Your task to perform on an android device: install app "ColorNote Notepad Notes" Image 0: 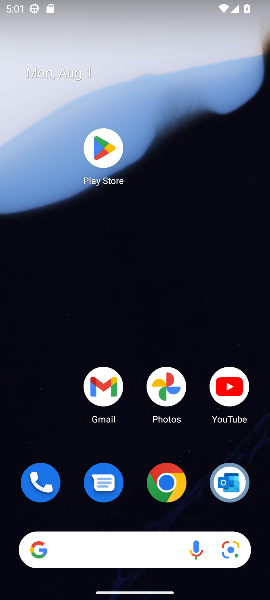
Step 0: press home button
Your task to perform on an android device: install app "ColorNote Notepad Notes" Image 1: 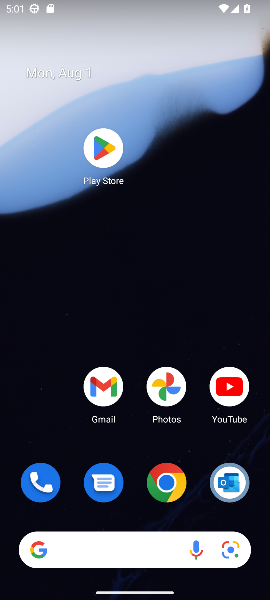
Step 1: click (102, 151)
Your task to perform on an android device: install app "ColorNote Notepad Notes" Image 2: 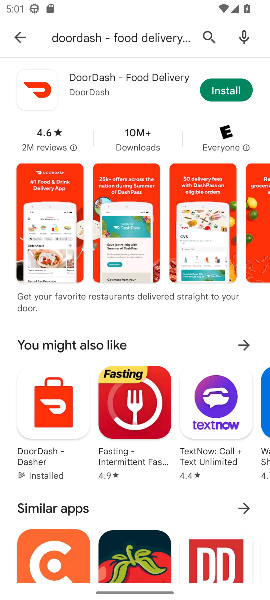
Step 2: click (202, 33)
Your task to perform on an android device: install app "ColorNote Notepad Notes" Image 3: 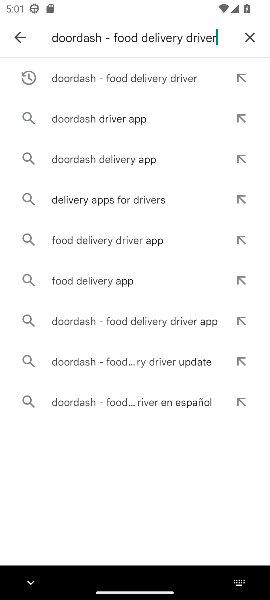
Step 3: click (250, 35)
Your task to perform on an android device: install app "ColorNote Notepad Notes" Image 4: 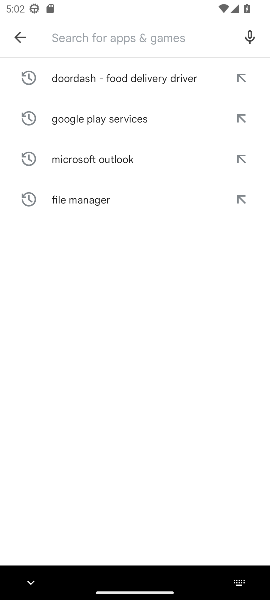
Step 4: type "ColorNote Notepad Notes"
Your task to perform on an android device: install app "ColorNote Notepad Notes" Image 5: 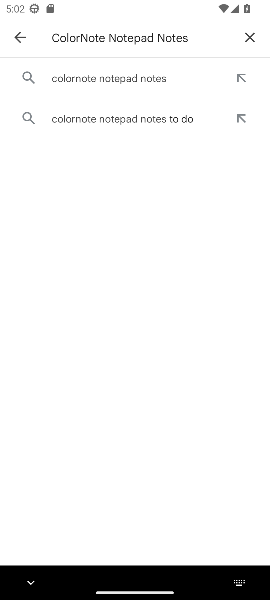
Step 5: click (143, 81)
Your task to perform on an android device: install app "ColorNote Notepad Notes" Image 6: 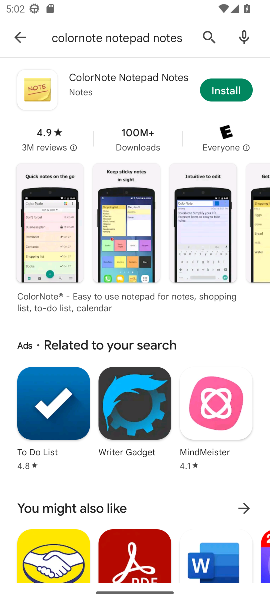
Step 6: click (219, 87)
Your task to perform on an android device: install app "ColorNote Notepad Notes" Image 7: 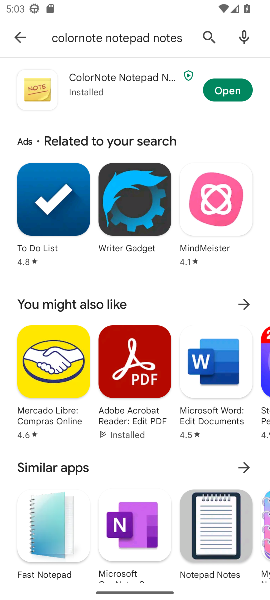
Step 7: task complete